Your task to perform on an android device: change the clock style Image 0: 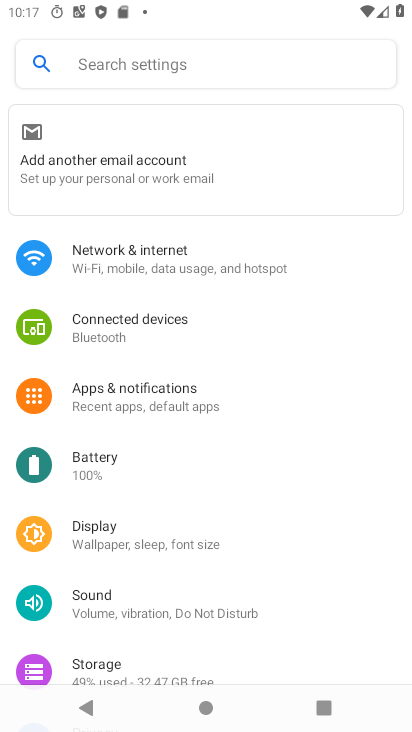
Step 0: press home button
Your task to perform on an android device: change the clock style Image 1: 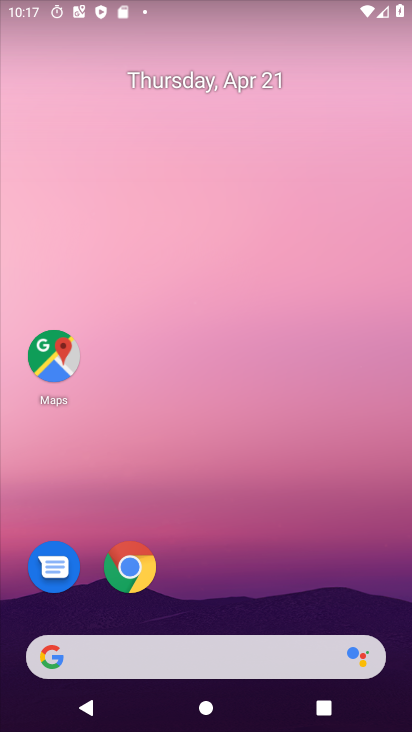
Step 1: drag from (227, 613) to (314, 71)
Your task to perform on an android device: change the clock style Image 2: 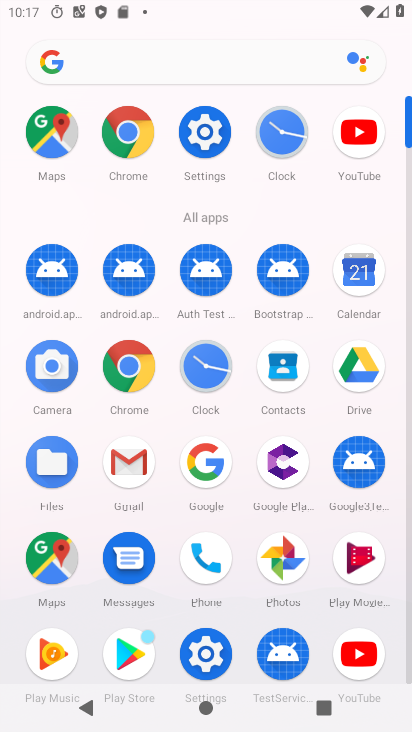
Step 2: click (338, 475)
Your task to perform on an android device: change the clock style Image 3: 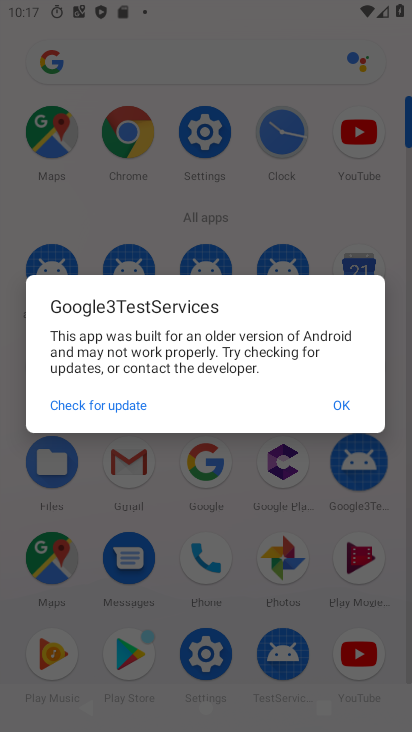
Step 3: click (204, 366)
Your task to perform on an android device: change the clock style Image 4: 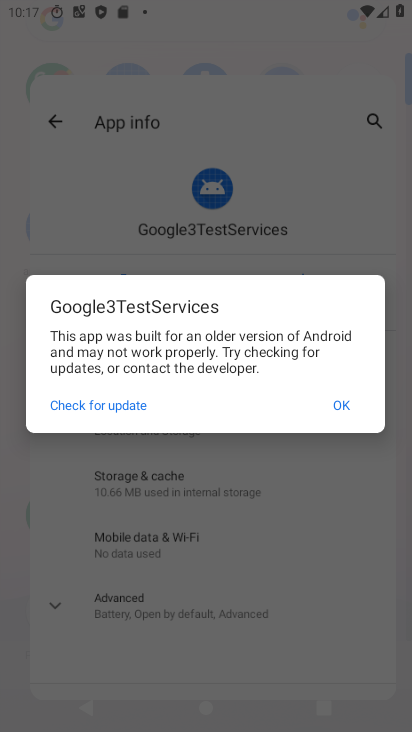
Step 4: click (102, 397)
Your task to perform on an android device: change the clock style Image 5: 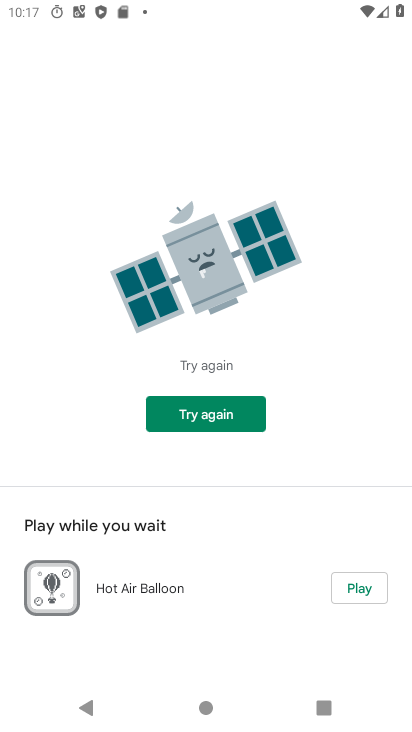
Step 5: press home button
Your task to perform on an android device: change the clock style Image 6: 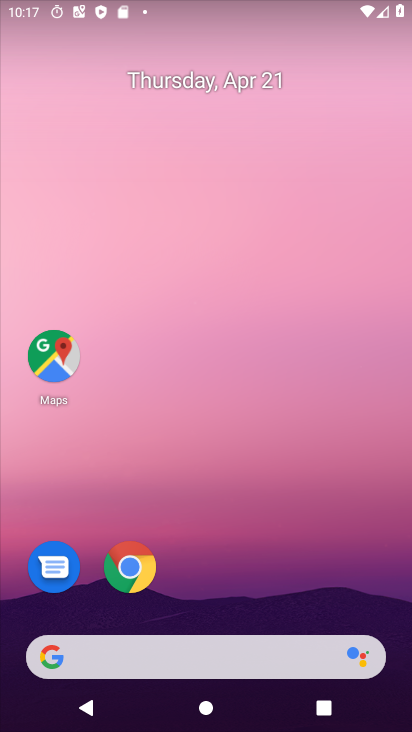
Step 6: drag from (223, 311) to (290, 47)
Your task to perform on an android device: change the clock style Image 7: 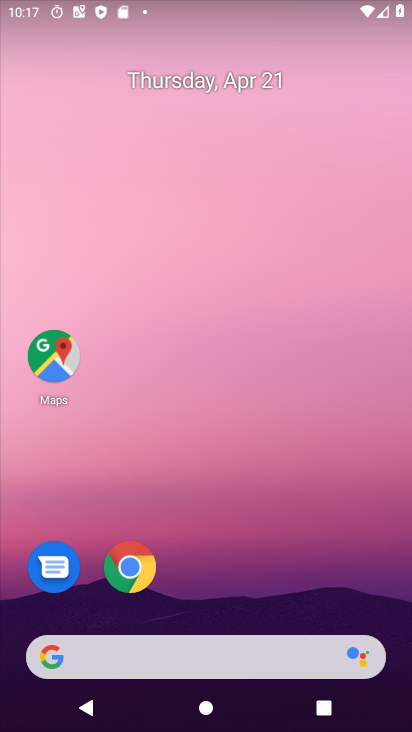
Step 7: drag from (208, 611) to (242, 6)
Your task to perform on an android device: change the clock style Image 8: 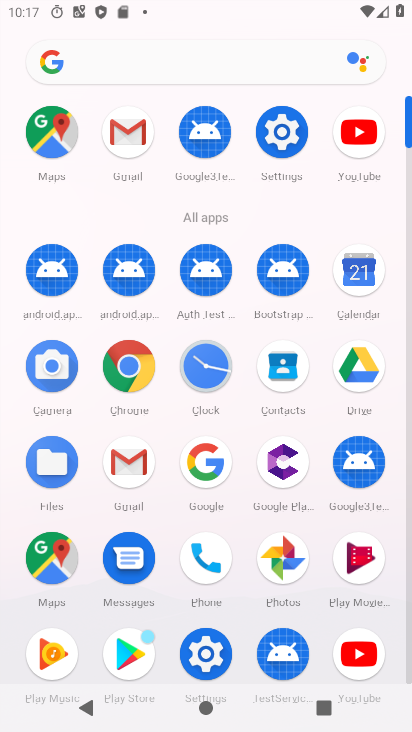
Step 8: click (204, 375)
Your task to perform on an android device: change the clock style Image 9: 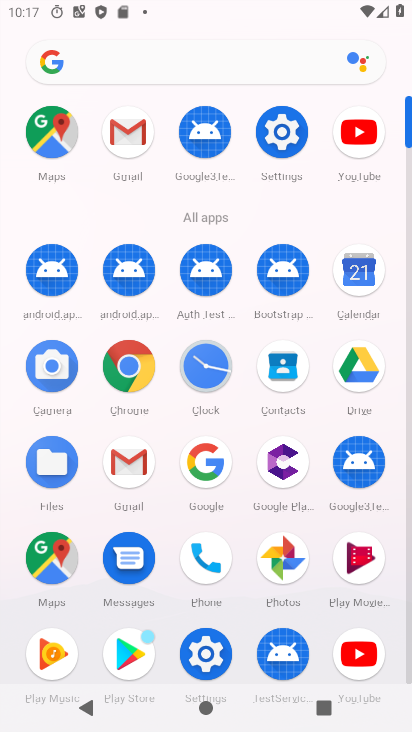
Step 9: click (204, 374)
Your task to perform on an android device: change the clock style Image 10: 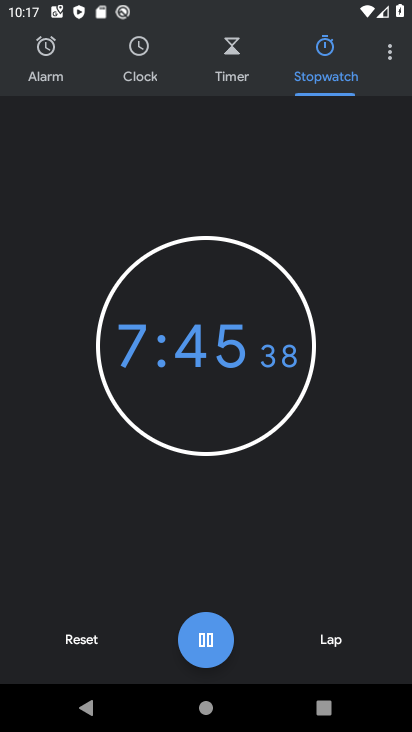
Step 10: click (93, 640)
Your task to perform on an android device: change the clock style Image 11: 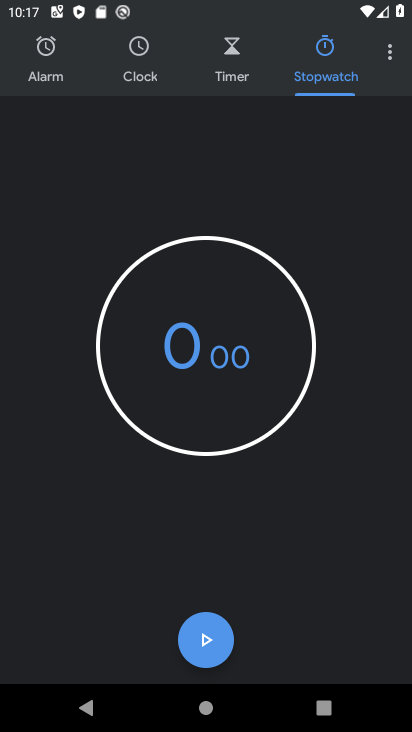
Step 11: click (390, 40)
Your task to perform on an android device: change the clock style Image 12: 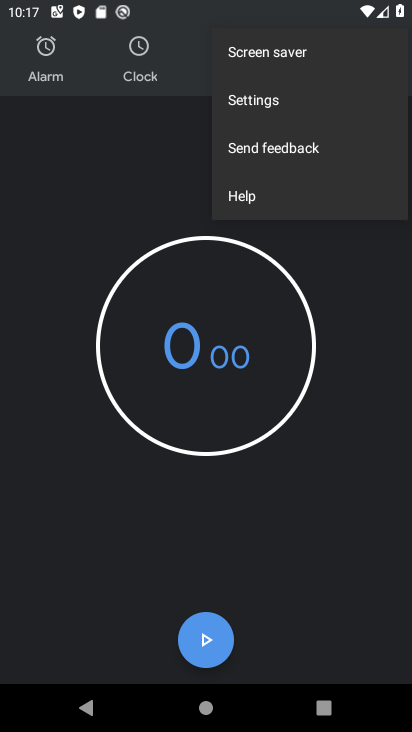
Step 12: click (265, 98)
Your task to perform on an android device: change the clock style Image 13: 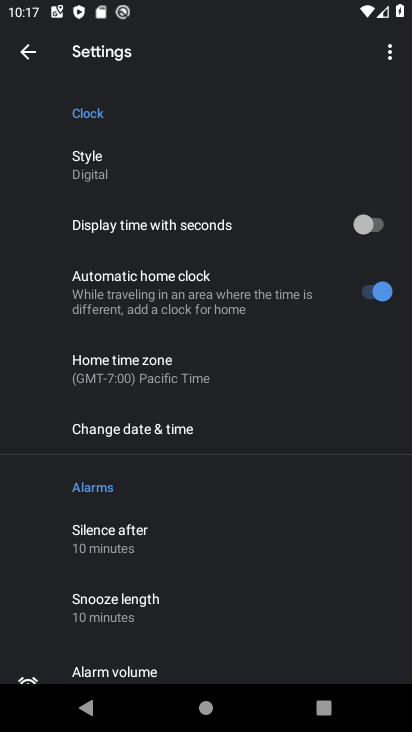
Step 13: click (159, 160)
Your task to perform on an android device: change the clock style Image 14: 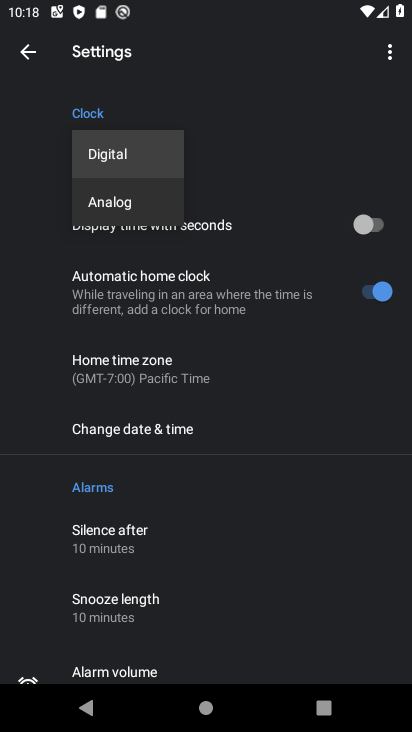
Step 14: click (112, 204)
Your task to perform on an android device: change the clock style Image 15: 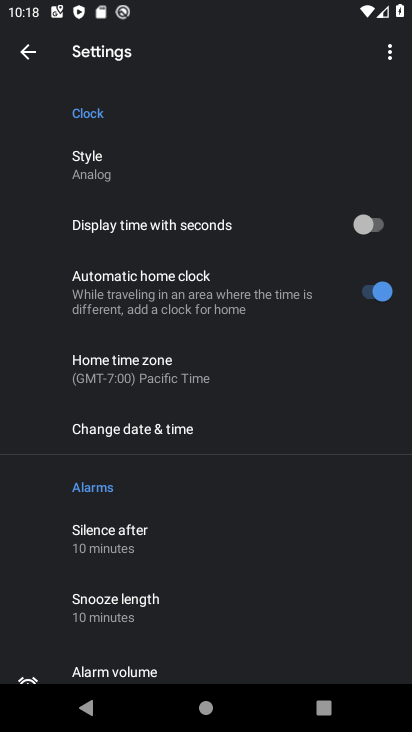
Step 15: task complete